Your task to perform on an android device: uninstall "Clock" Image 0: 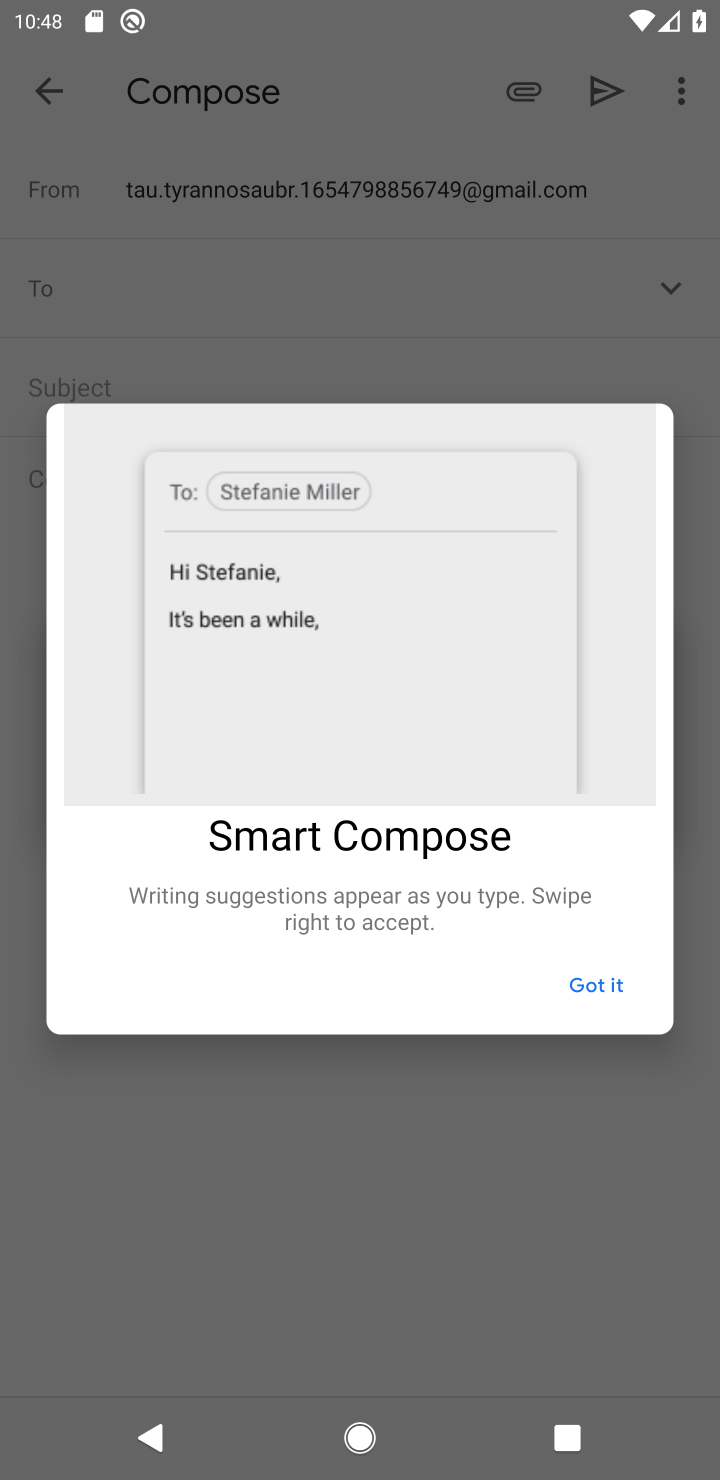
Step 0: press home button
Your task to perform on an android device: uninstall "Clock" Image 1: 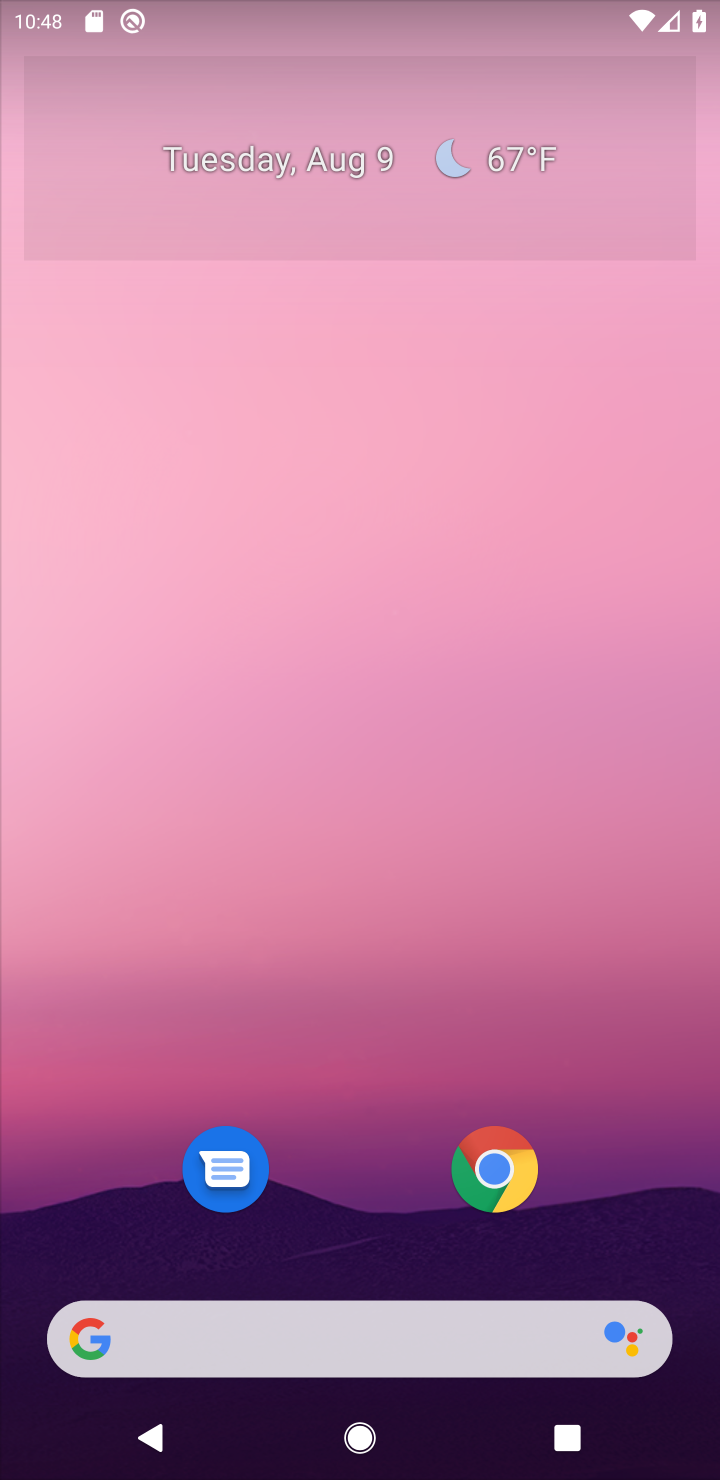
Step 1: press home button
Your task to perform on an android device: uninstall "Clock" Image 2: 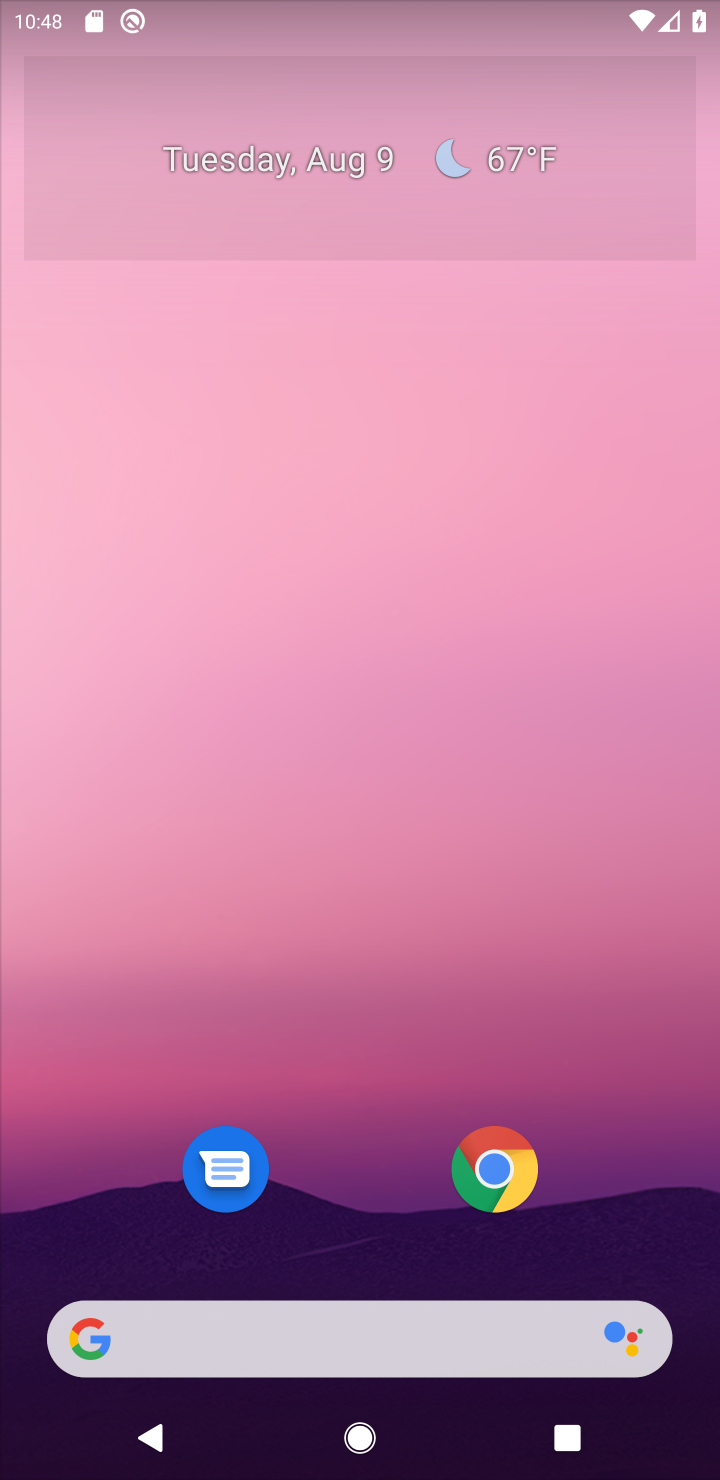
Step 2: drag from (619, 1207) to (644, 174)
Your task to perform on an android device: uninstall "Clock" Image 3: 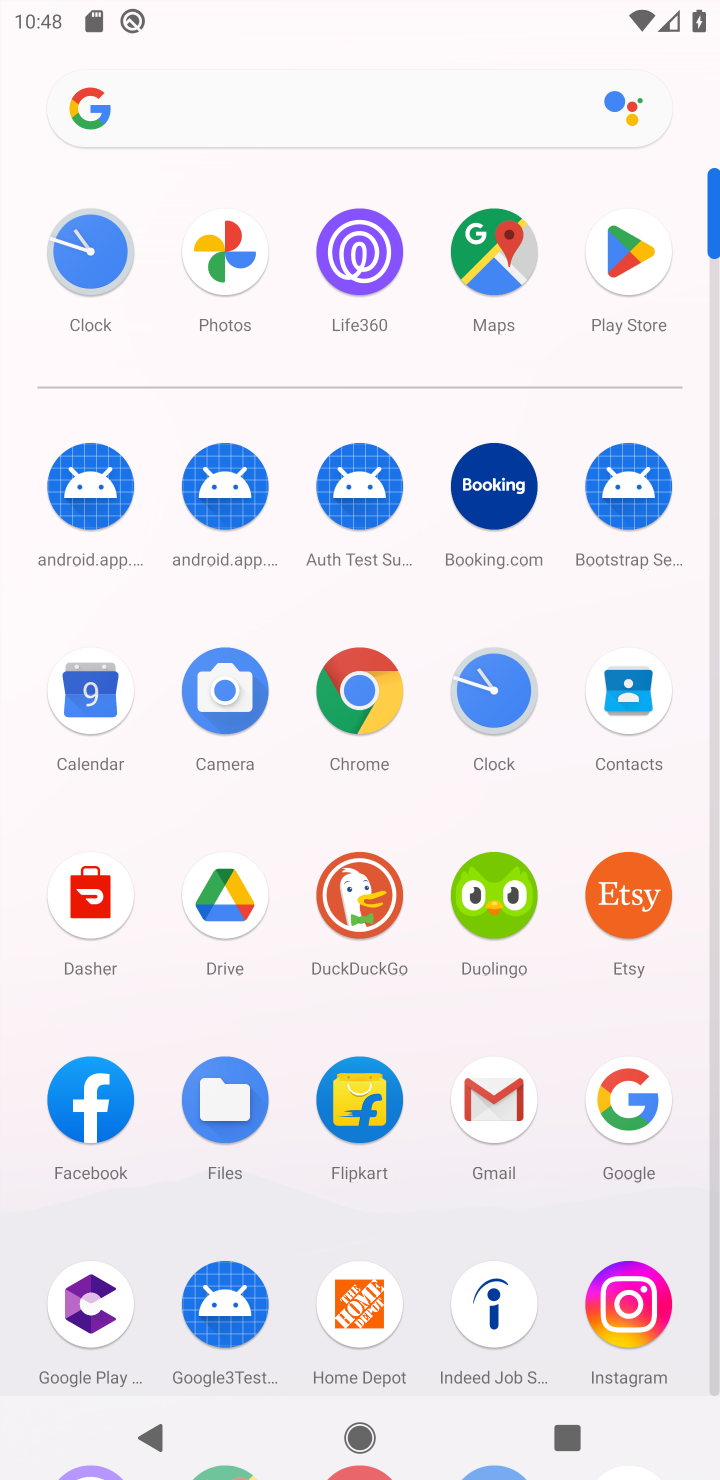
Step 3: click (629, 253)
Your task to perform on an android device: uninstall "Clock" Image 4: 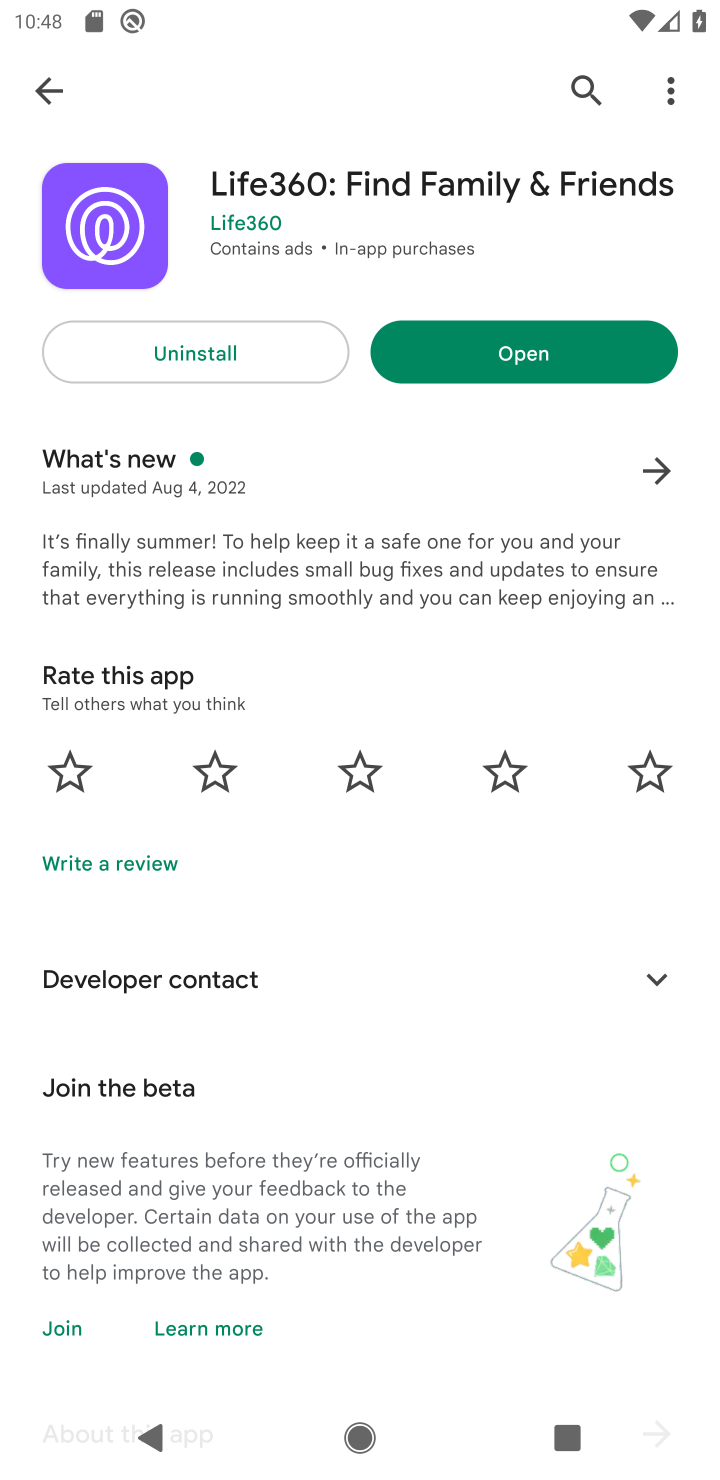
Step 4: click (585, 93)
Your task to perform on an android device: uninstall "Clock" Image 5: 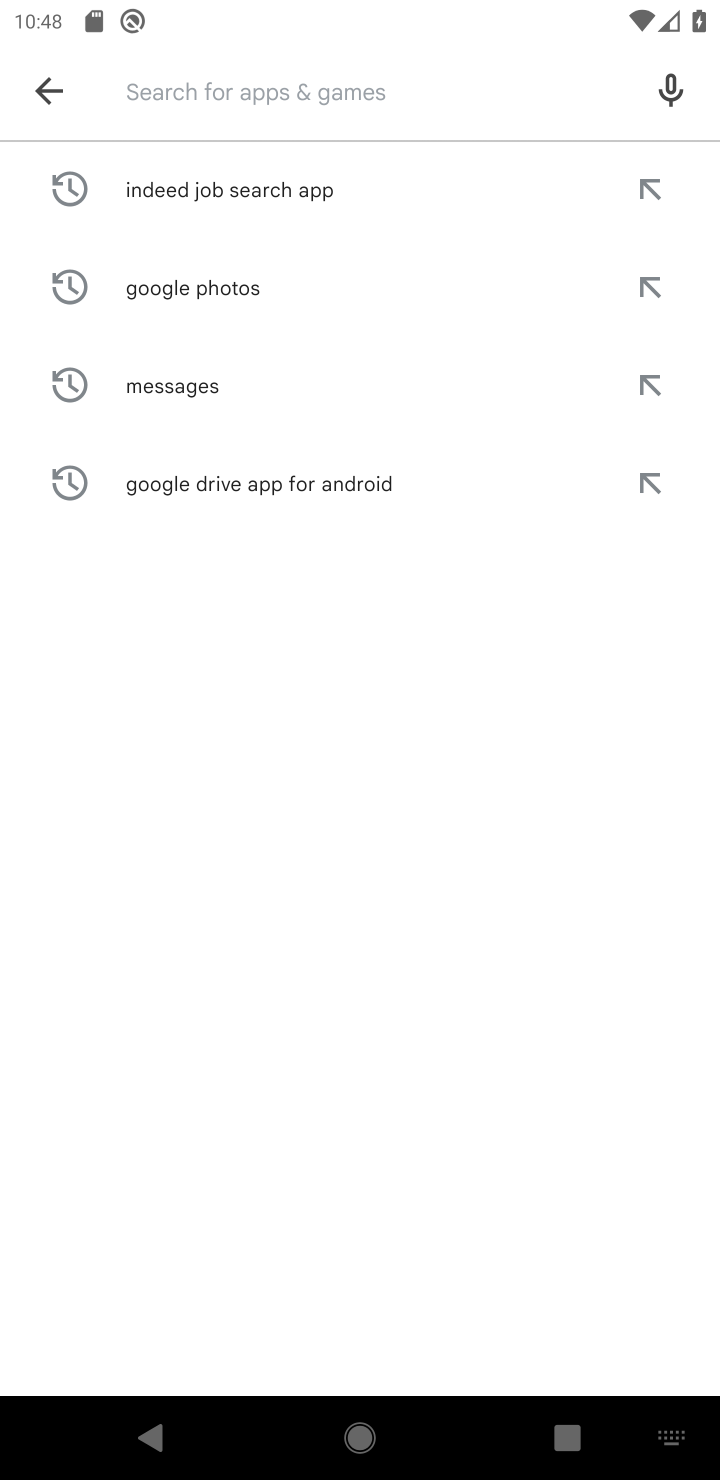
Step 5: type "clock"
Your task to perform on an android device: uninstall "Clock" Image 6: 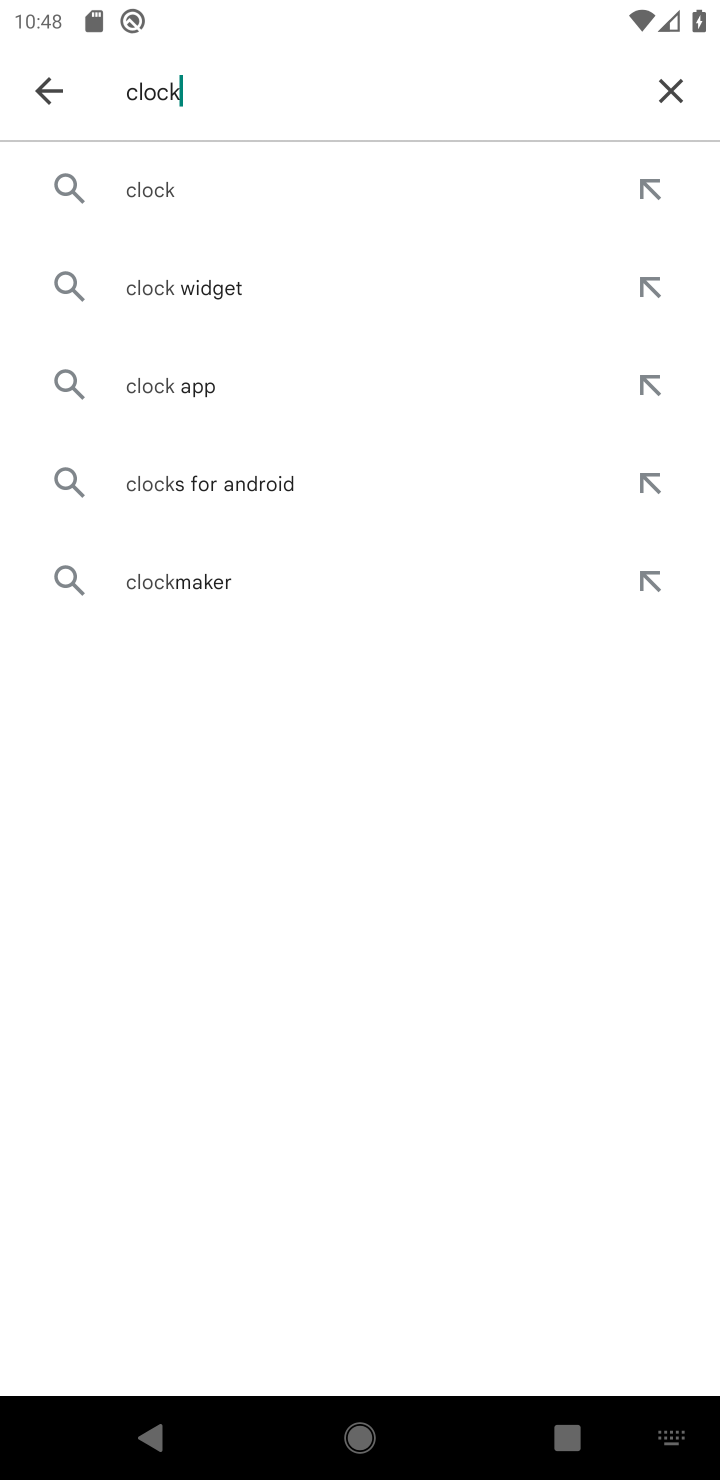
Step 6: click (240, 184)
Your task to perform on an android device: uninstall "Clock" Image 7: 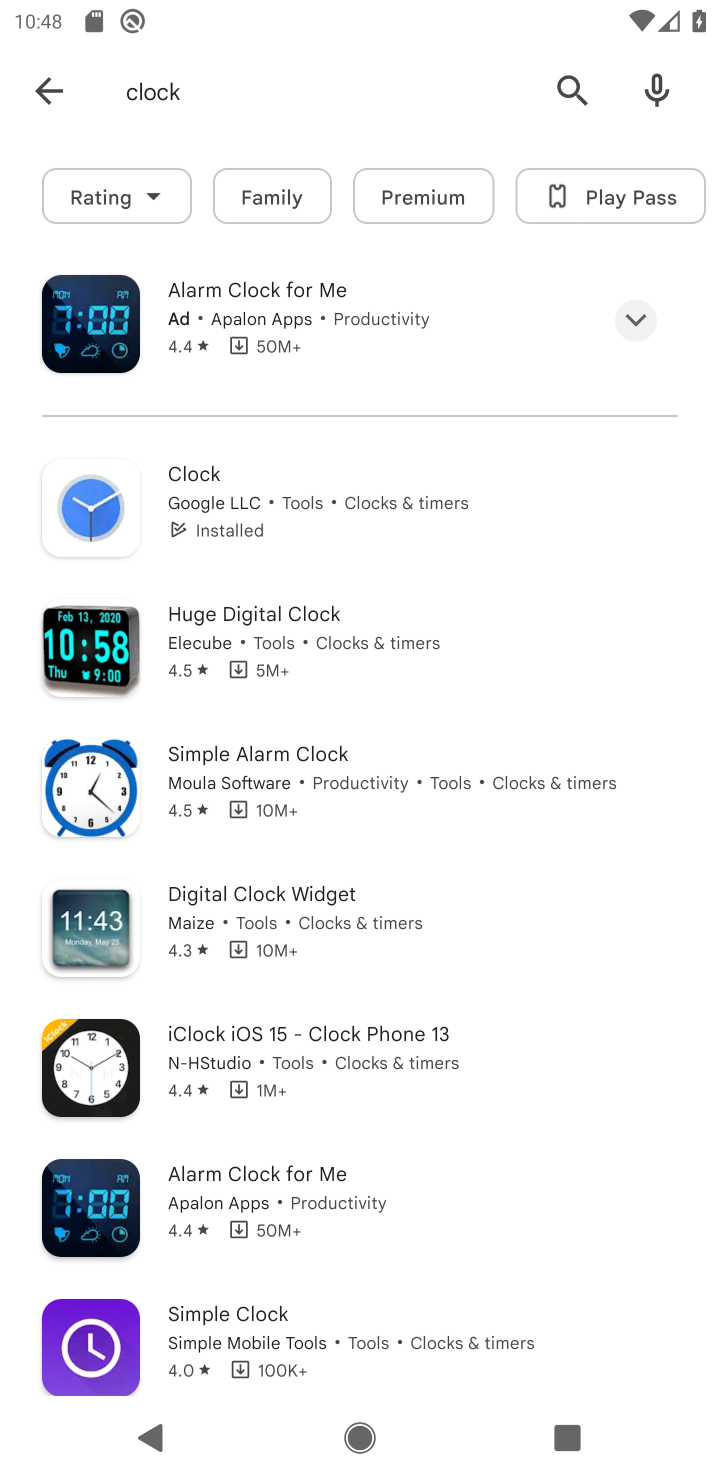
Step 7: click (307, 481)
Your task to perform on an android device: uninstall "Clock" Image 8: 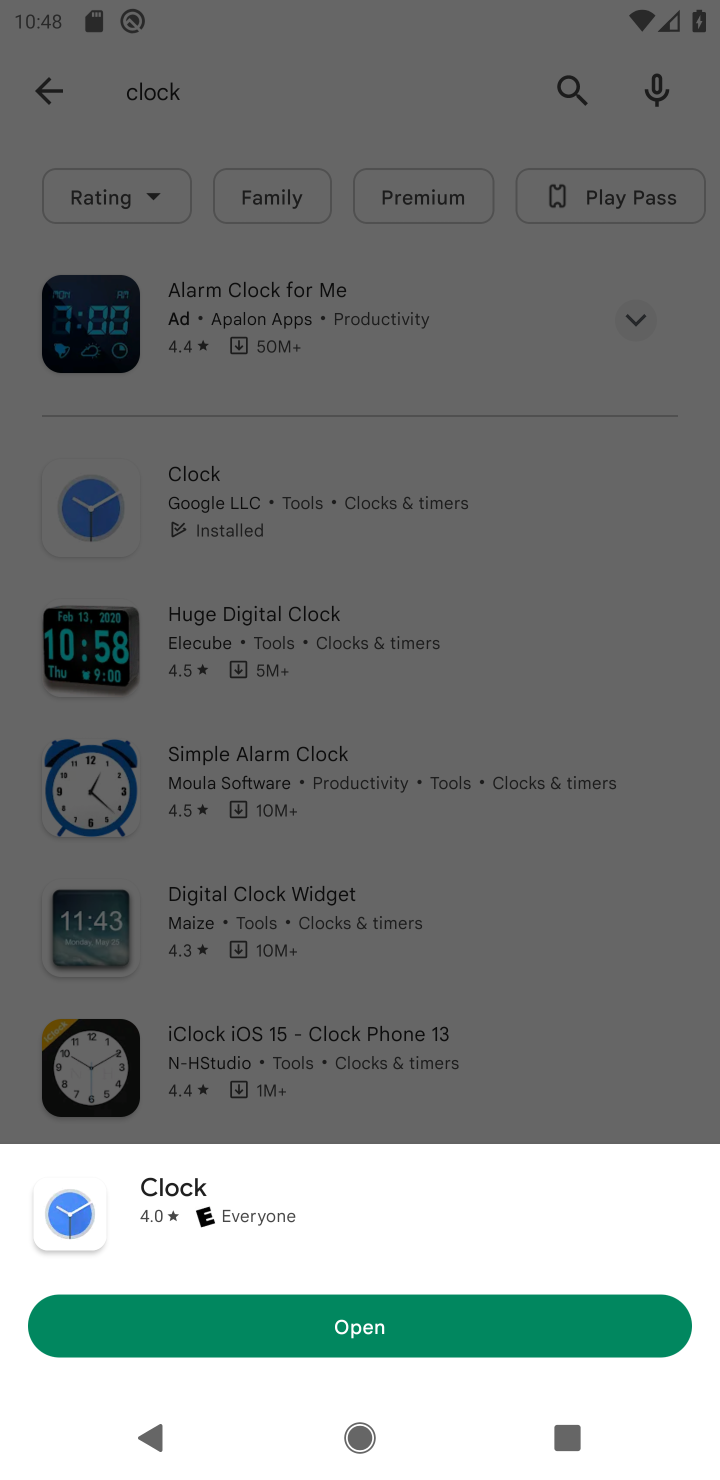
Step 8: task complete